Your task to perform on an android device: Go to Yahoo.com Image 0: 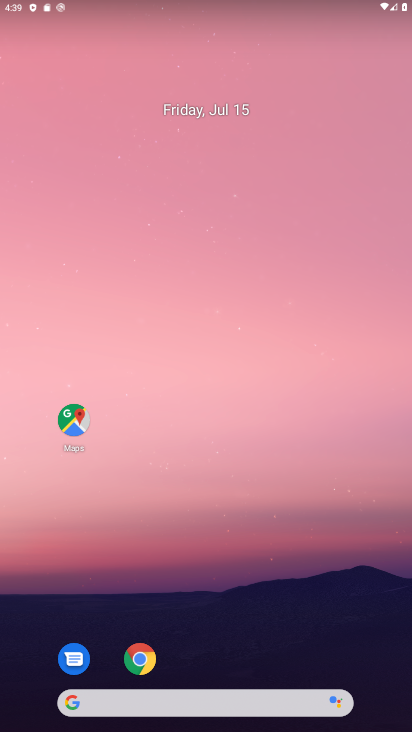
Step 0: drag from (291, 604) to (247, 33)
Your task to perform on an android device: Go to Yahoo.com Image 1: 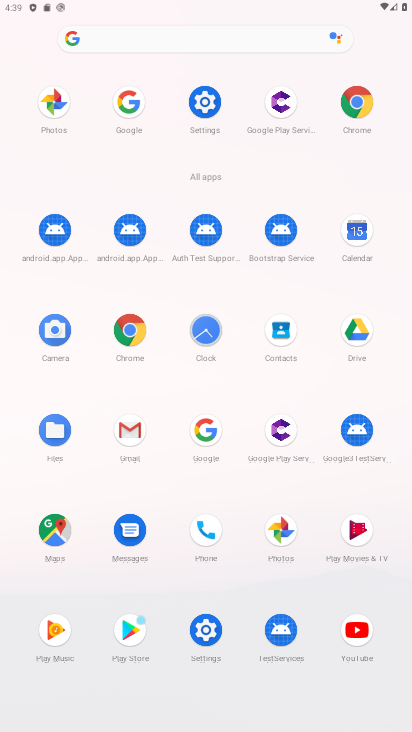
Step 1: click (356, 106)
Your task to perform on an android device: Go to Yahoo.com Image 2: 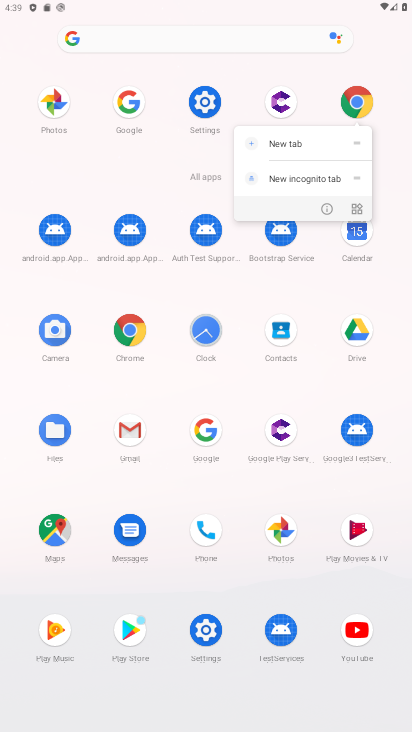
Step 2: click (359, 105)
Your task to perform on an android device: Go to Yahoo.com Image 3: 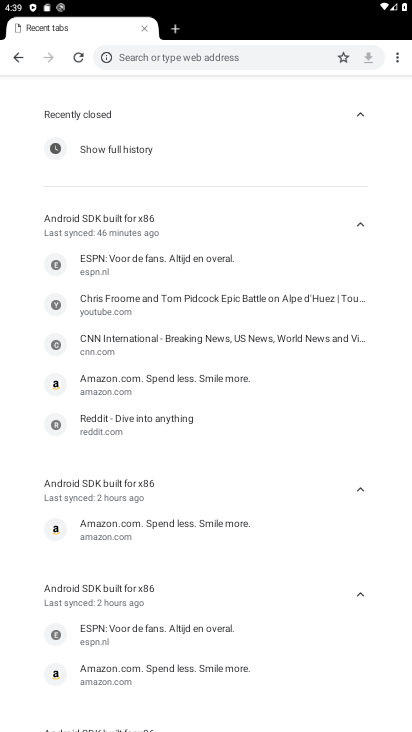
Step 3: click (166, 36)
Your task to perform on an android device: Go to Yahoo.com Image 4: 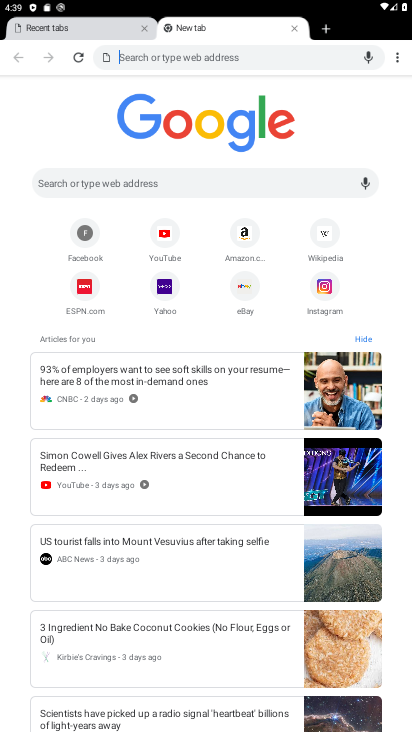
Step 4: click (172, 283)
Your task to perform on an android device: Go to Yahoo.com Image 5: 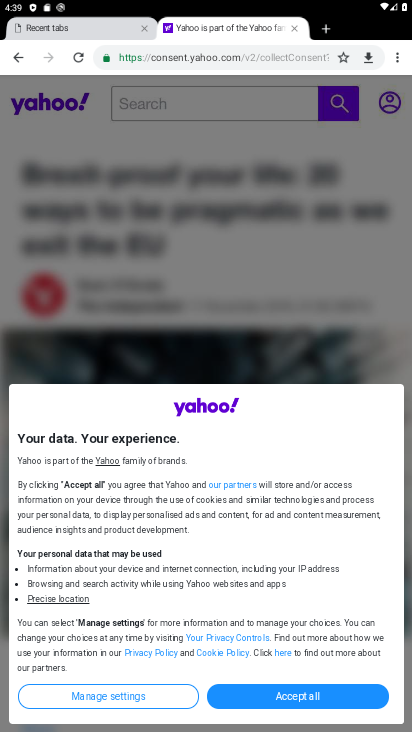
Step 5: task complete